Your task to perform on an android device: Go to network settings Image 0: 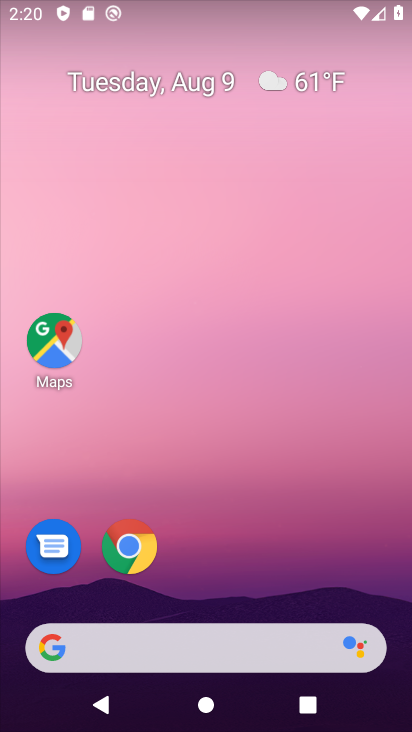
Step 0: drag from (230, 56) to (341, 571)
Your task to perform on an android device: Go to network settings Image 1: 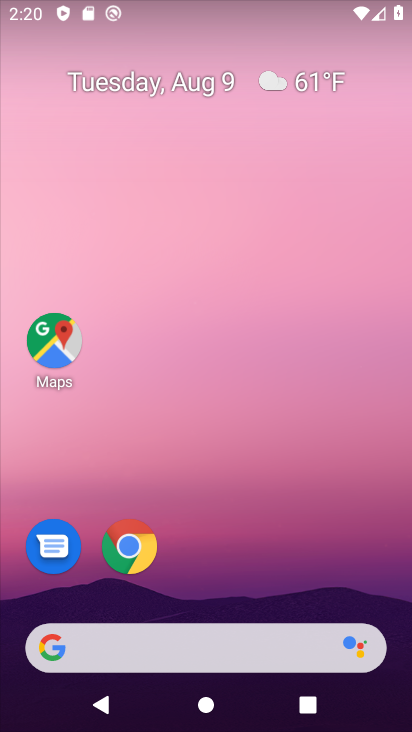
Step 1: drag from (162, 13) to (262, 403)
Your task to perform on an android device: Go to network settings Image 2: 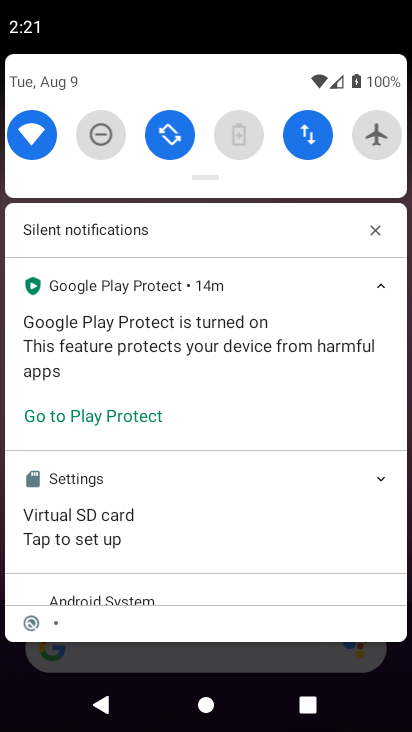
Step 2: click (295, 147)
Your task to perform on an android device: Go to network settings Image 3: 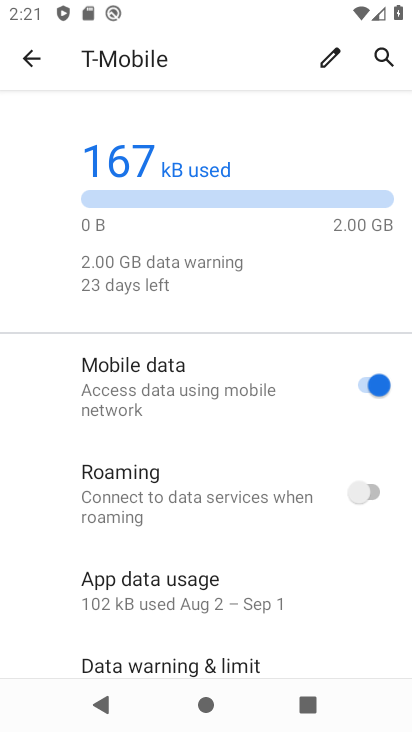
Step 3: task complete